Your task to perform on an android device: open sync settings in chrome Image 0: 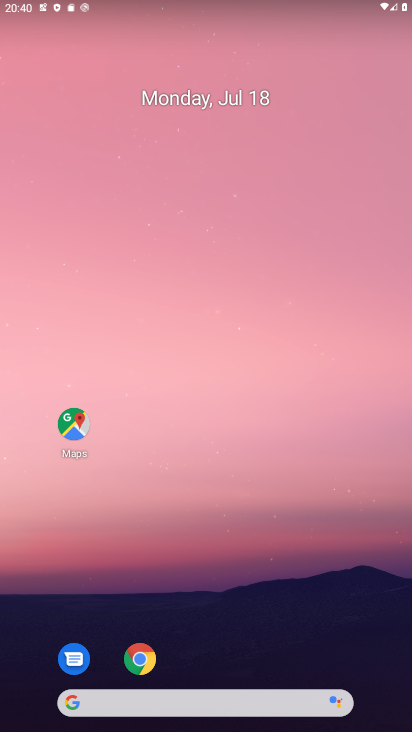
Step 0: drag from (225, 564) to (152, 164)
Your task to perform on an android device: open sync settings in chrome Image 1: 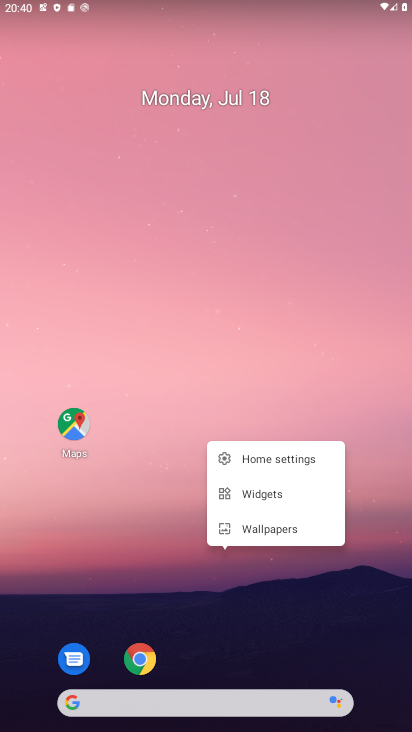
Step 1: drag from (220, 614) to (179, 247)
Your task to perform on an android device: open sync settings in chrome Image 2: 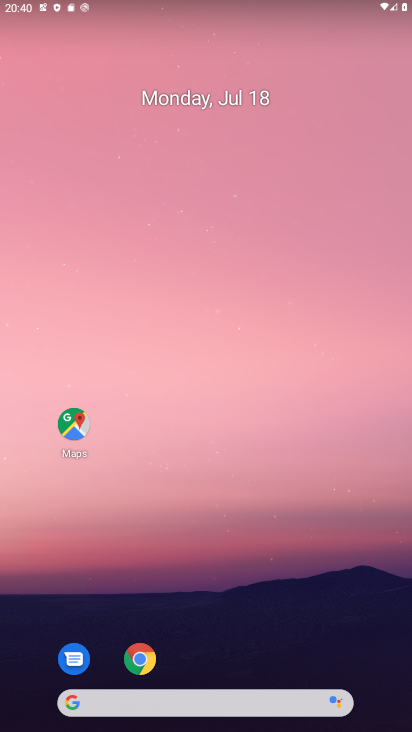
Step 2: drag from (205, 644) to (165, 240)
Your task to perform on an android device: open sync settings in chrome Image 3: 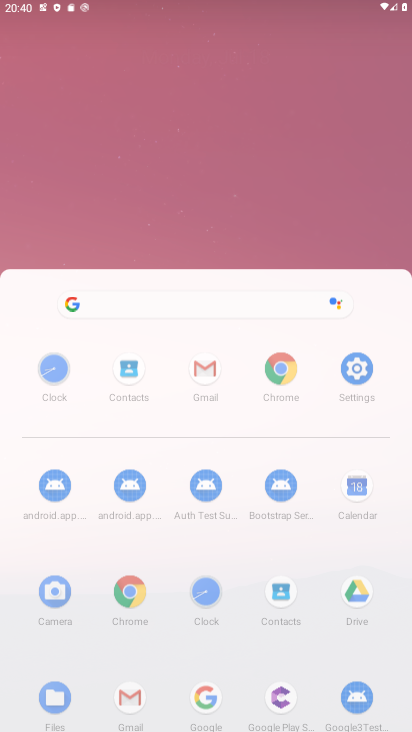
Step 3: drag from (288, 635) to (245, 160)
Your task to perform on an android device: open sync settings in chrome Image 4: 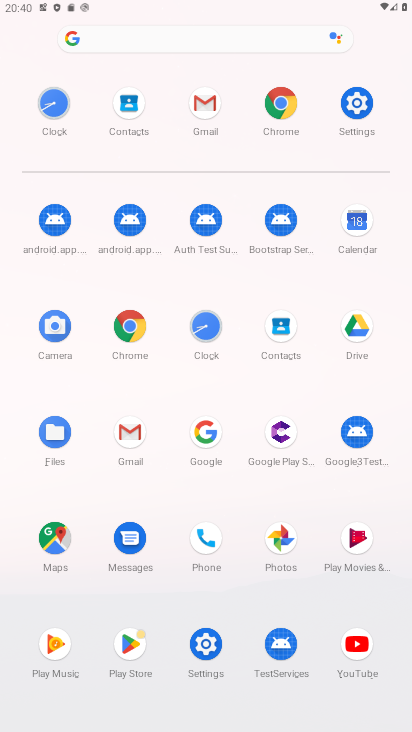
Step 4: click (282, 94)
Your task to perform on an android device: open sync settings in chrome Image 5: 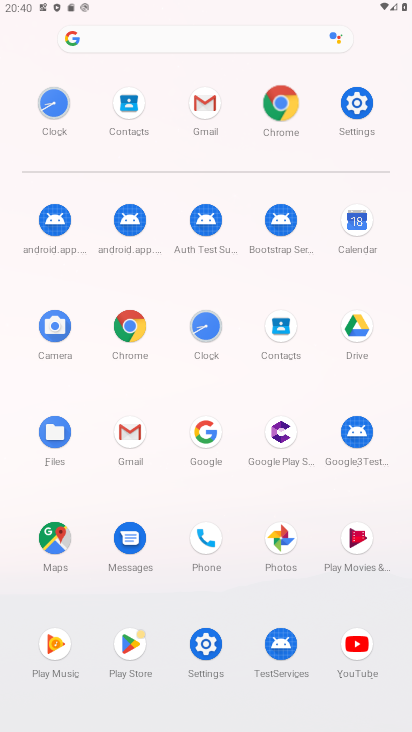
Step 5: click (282, 101)
Your task to perform on an android device: open sync settings in chrome Image 6: 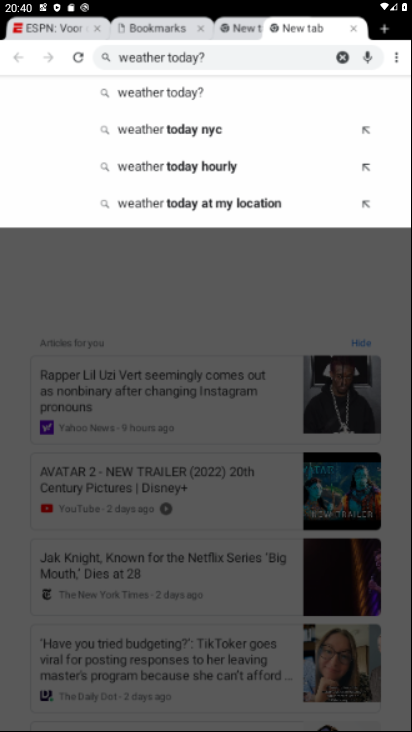
Step 6: click (263, 98)
Your task to perform on an android device: open sync settings in chrome Image 7: 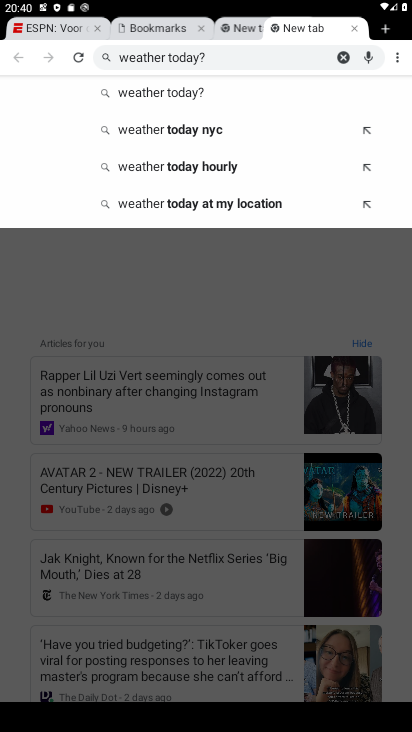
Step 7: drag from (396, 55) to (278, 273)
Your task to perform on an android device: open sync settings in chrome Image 8: 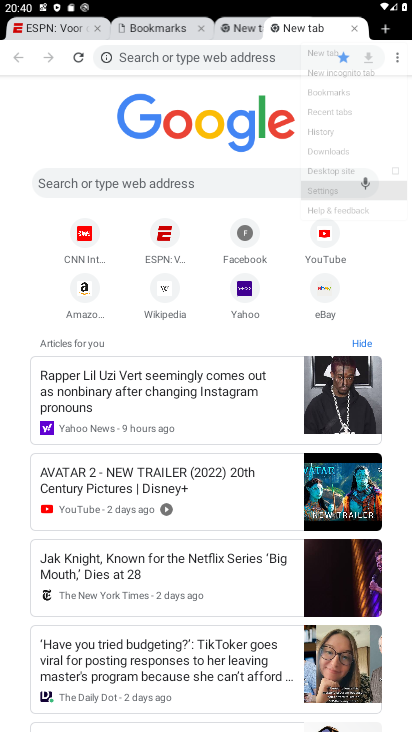
Step 8: click (265, 266)
Your task to perform on an android device: open sync settings in chrome Image 9: 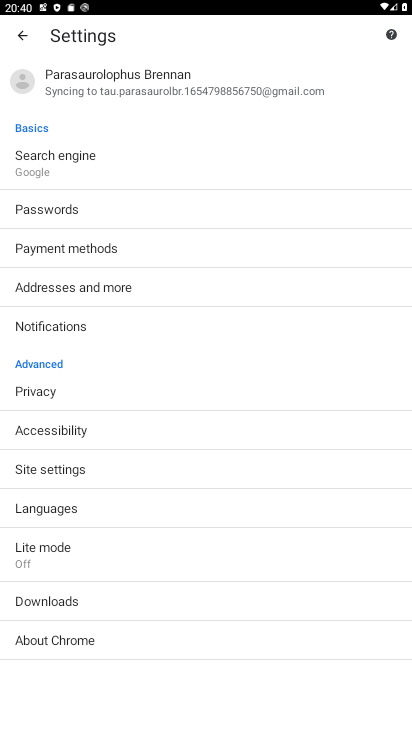
Step 9: click (46, 465)
Your task to perform on an android device: open sync settings in chrome Image 10: 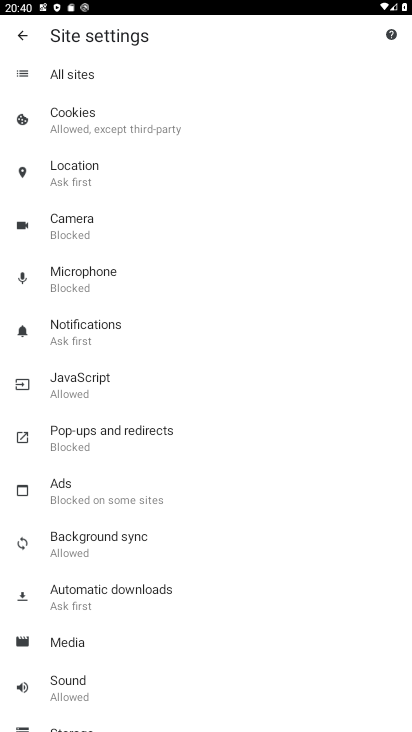
Step 10: click (75, 550)
Your task to perform on an android device: open sync settings in chrome Image 11: 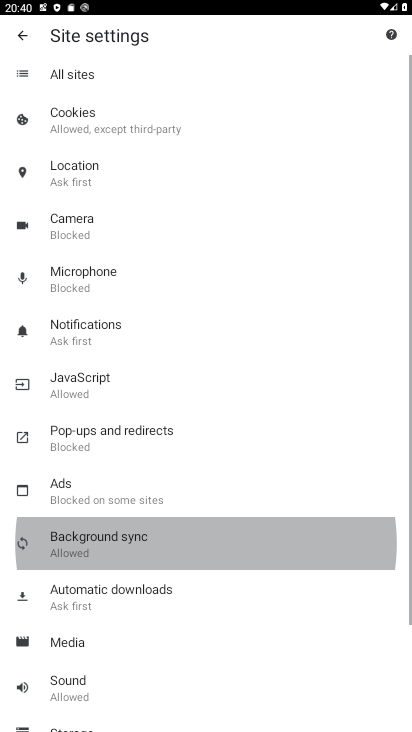
Step 11: click (79, 550)
Your task to perform on an android device: open sync settings in chrome Image 12: 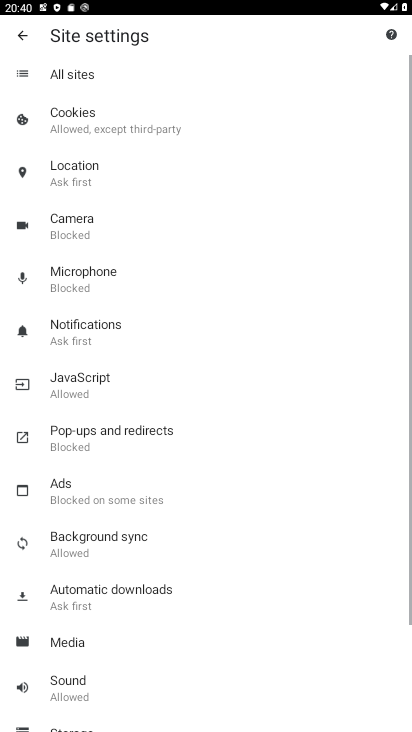
Step 12: click (79, 550)
Your task to perform on an android device: open sync settings in chrome Image 13: 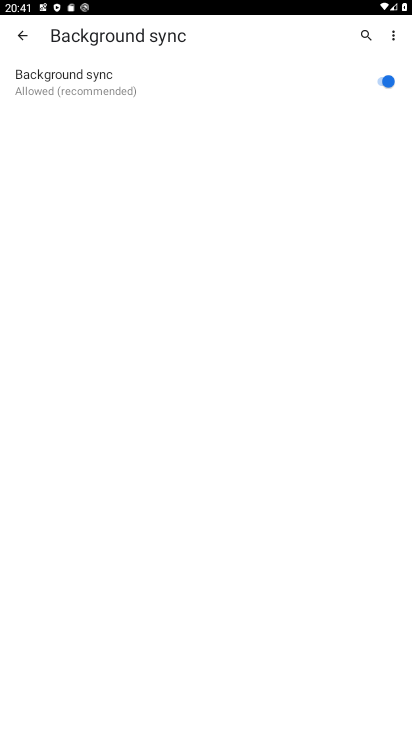
Step 13: task complete